Your task to perform on an android device: turn notification dots on Image 0: 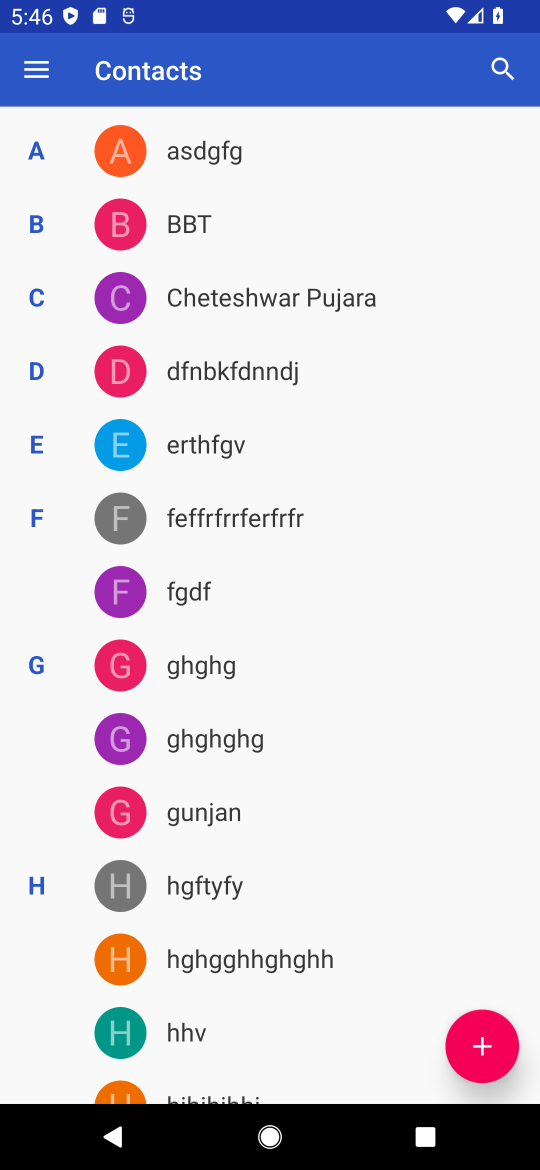
Step 0: press home button
Your task to perform on an android device: turn notification dots on Image 1: 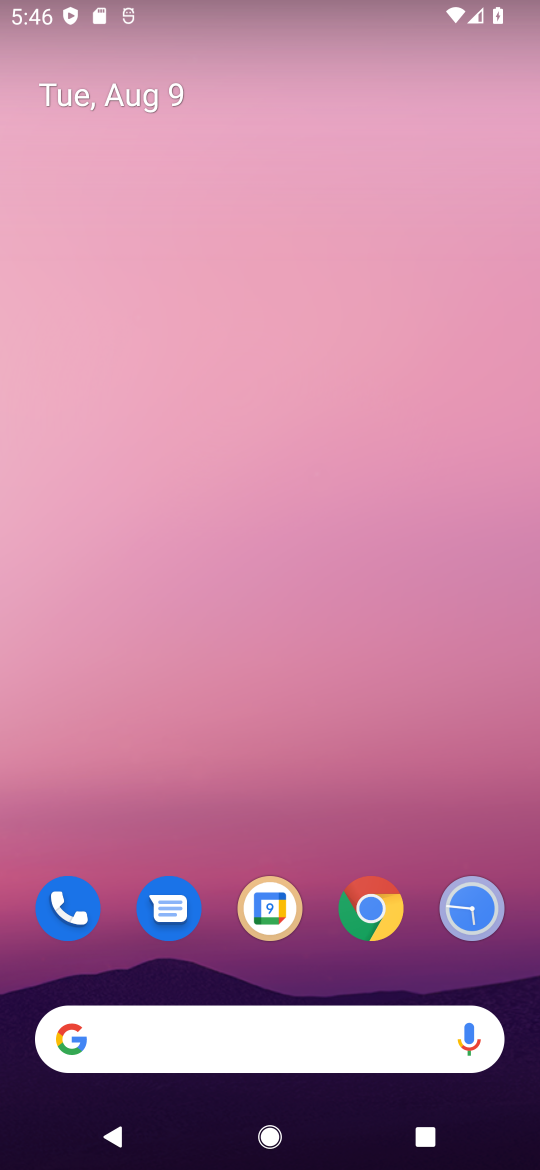
Step 1: drag from (352, 784) to (424, 2)
Your task to perform on an android device: turn notification dots on Image 2: 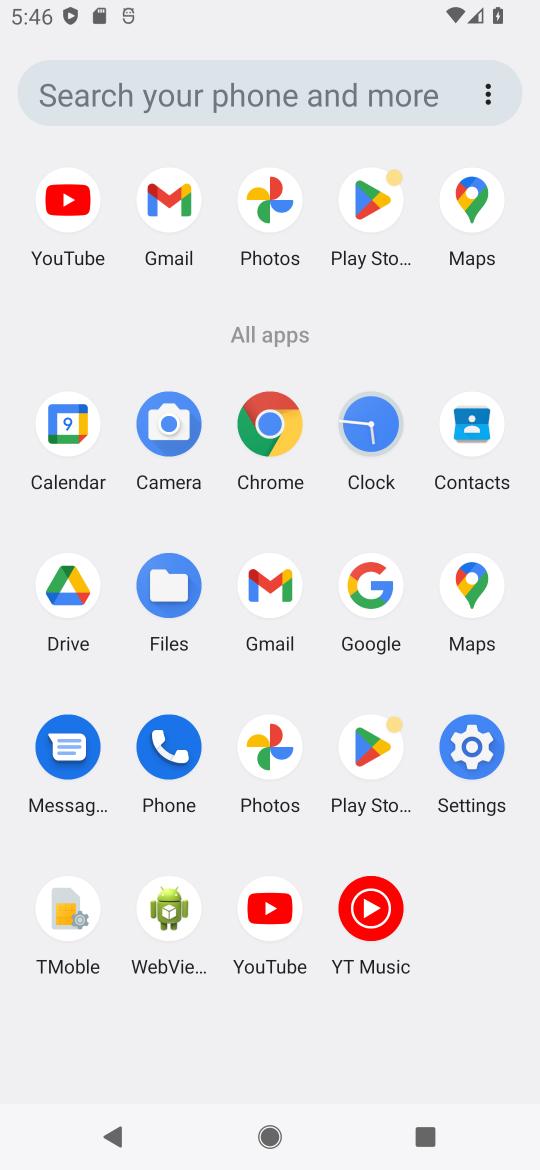
Step 2: click (477, 734)
Your task to perform on an android device: turn notification dots on Image 3: 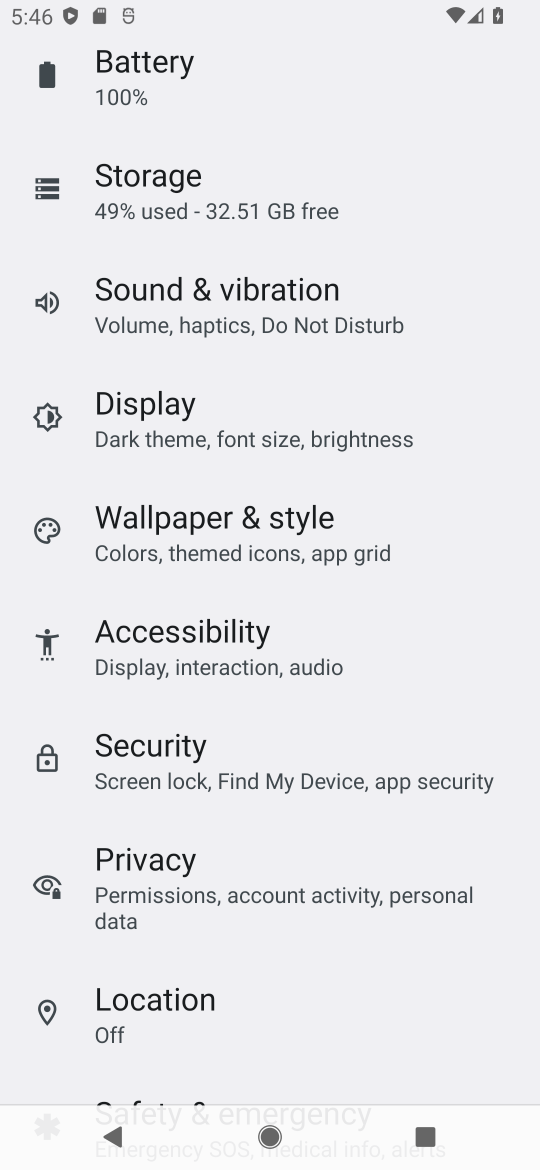
Step 3: drag from (331, 259) to (309, 984)
Your task to perform on an android device: turn notification dots on Image 4: 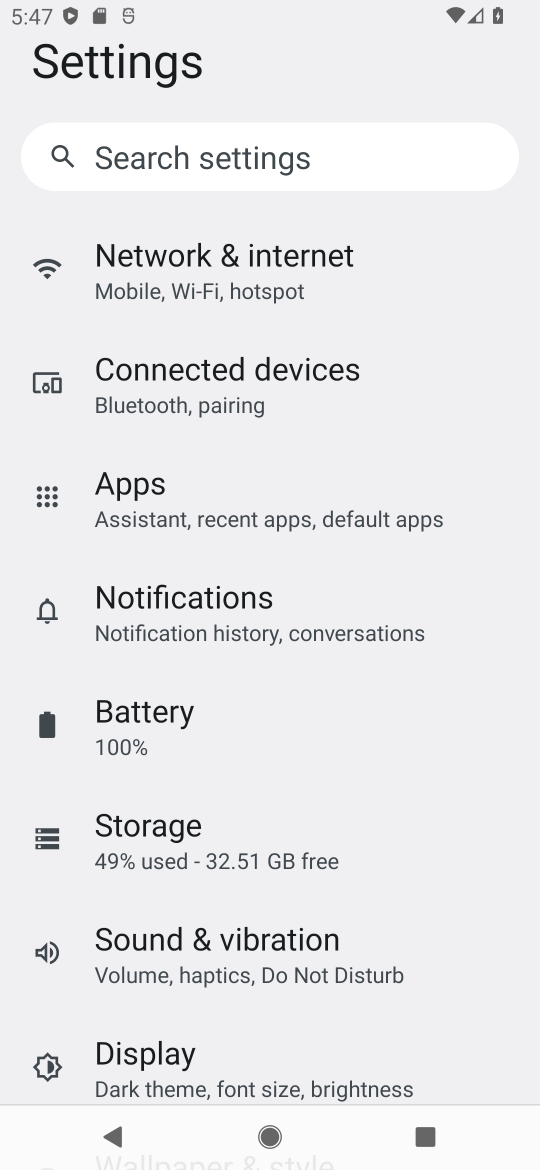
Step 4: click (284, 621)
Your task to perform on an android device: turn notification dots on Image 5: 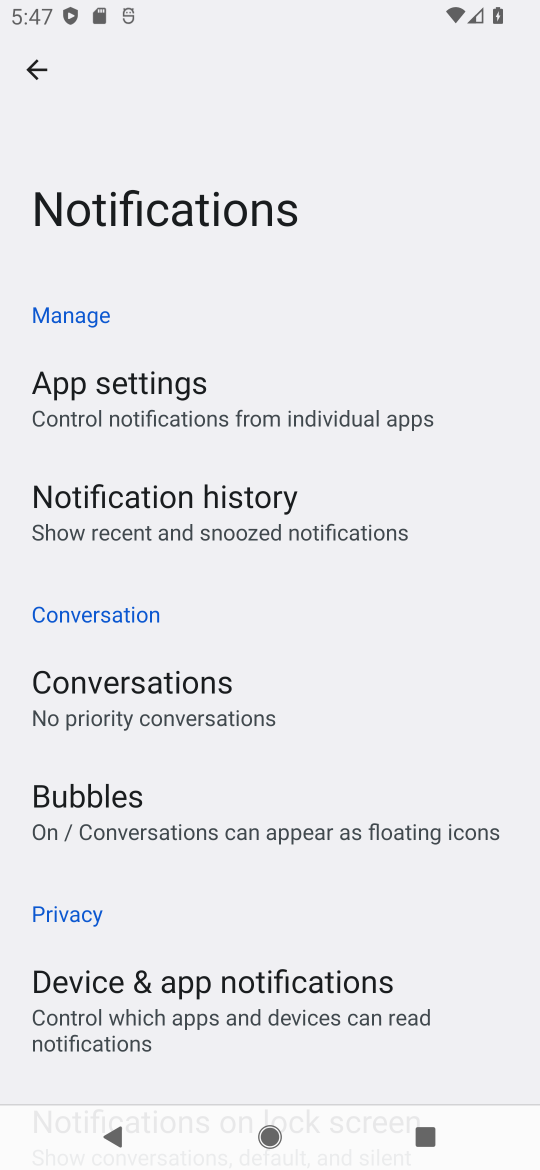
Step 5: task complete